Your task to perform on an android device: remove spam from my inbox in the gmail app Image 0: 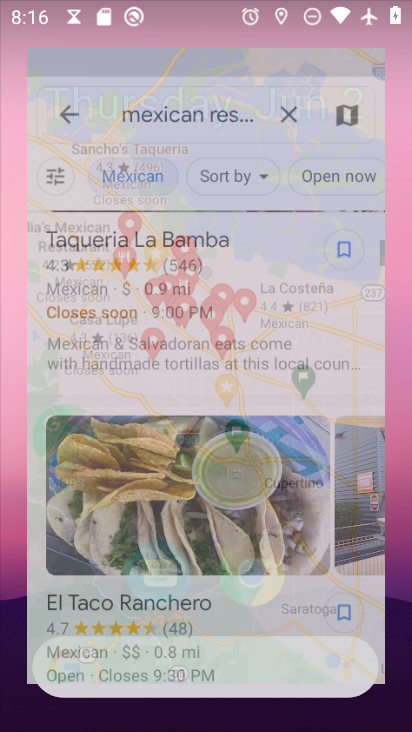
Step 0: press home button
Your task to perform on an android device: remove spam from my inbox in the gmail app Image 1: 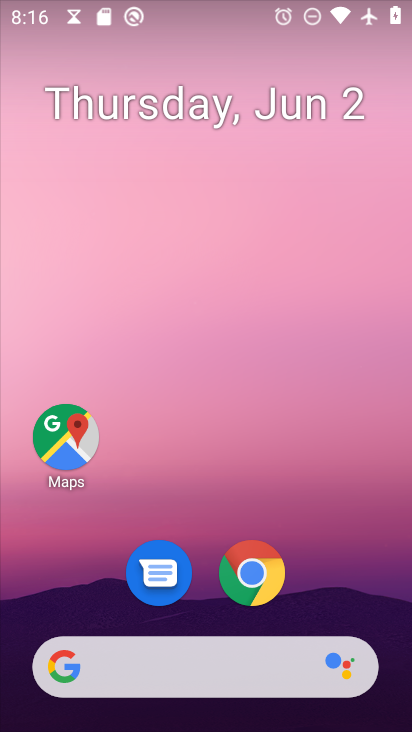
Step 1: drag from (184, 653) to (335, 101)
Your task to perform on an android device: remove spam from my inbox in the gmail app Image 2: 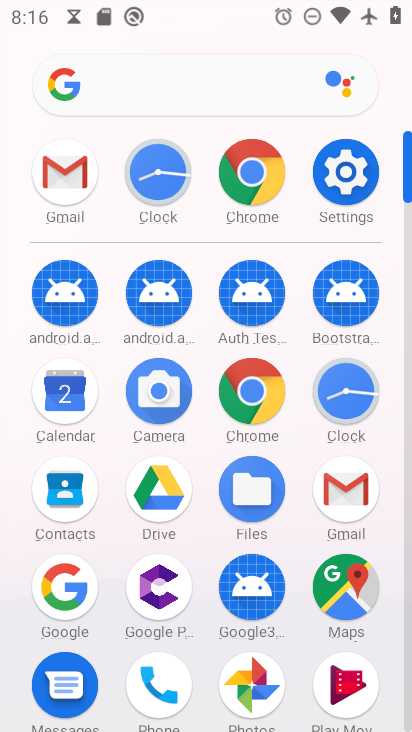
Step 2: click (57, 192)
Your task to perform on an android device: remove spam from my inbox in the gmail app Image 3: 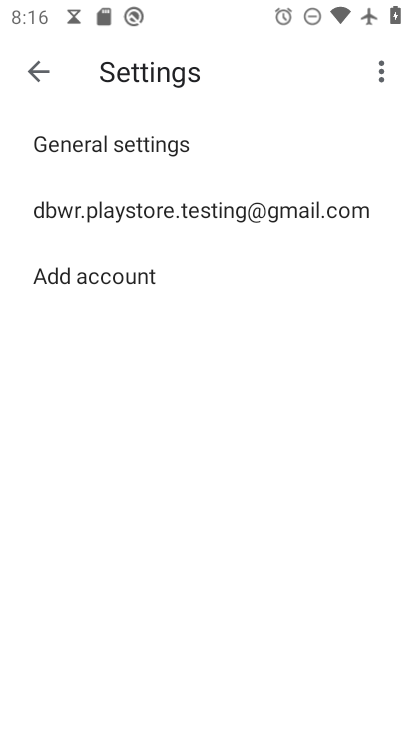
Step 3: click (40, 72)
Your task to perform on an android device: remove spam from my inbox in the gmail app Image 4: 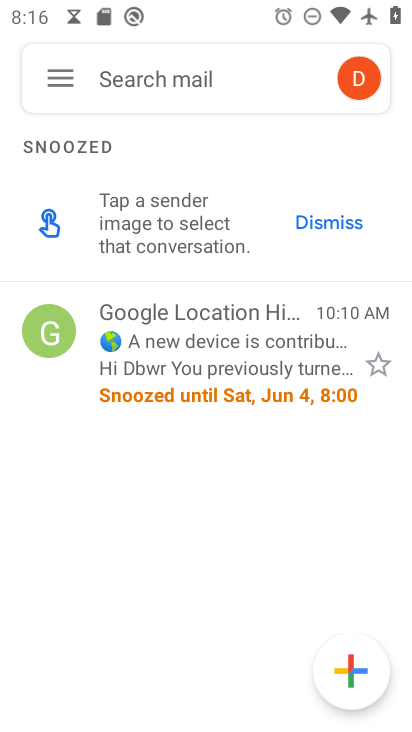
Step 4: click (56, 86)
Your task to perform on an android device: remove spam from my inbox in the gmail app Image 5: 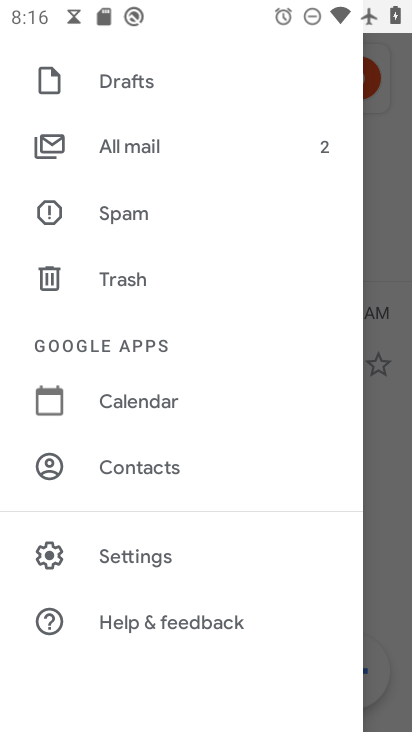
Step 5: click (130, 218)
Your task to perform on an android device: remove spam from my inbox in the gmail app Image 6: 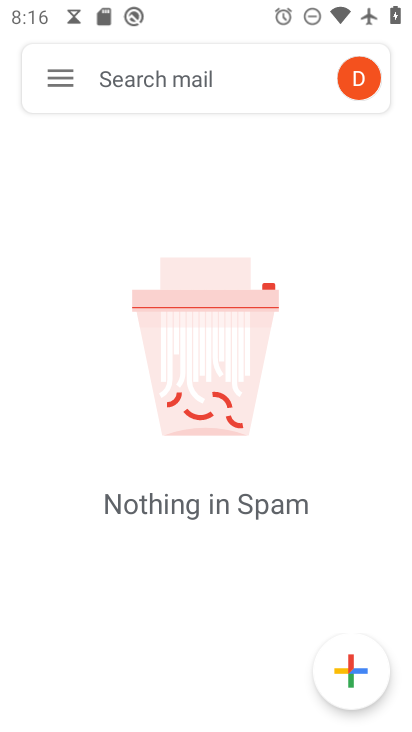
Step 6: task complete